Your task to perform on an android device: delete the emails in spam in the gmail app Image 0: 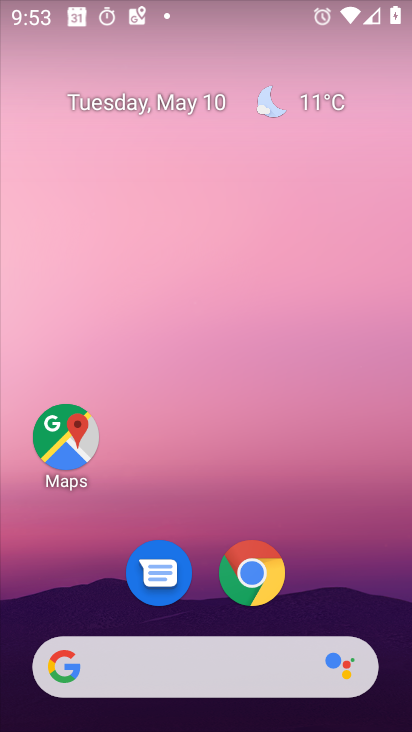
Step 0: drag from (379, 620) to (370, 118)
Your task to perform on an android device: delete the emails in spam in the gmail app Image 1: 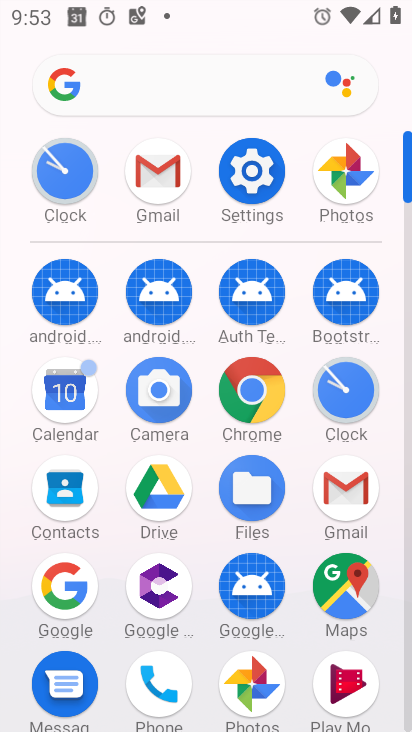
Step 1: click (159, 183)
Your task to perform on an android device: delete the emails in spam in the gmail app Image 2: 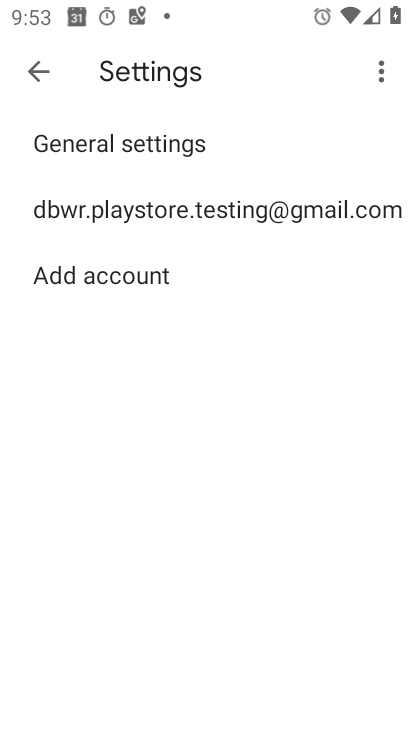
Step 2: click (41, 78)
Your task to perform on an android device: delete the emails in spam in the gmail app Image 3: 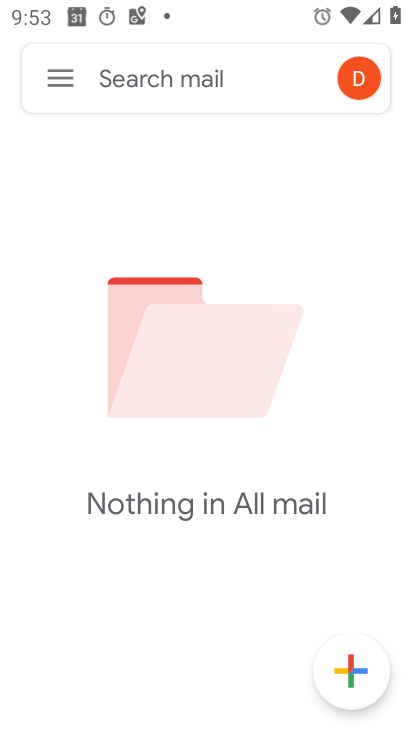
Step 3: click (49, 87)
Your task to perform on an android device: delete the emails in spam in the gmail app Image 4: 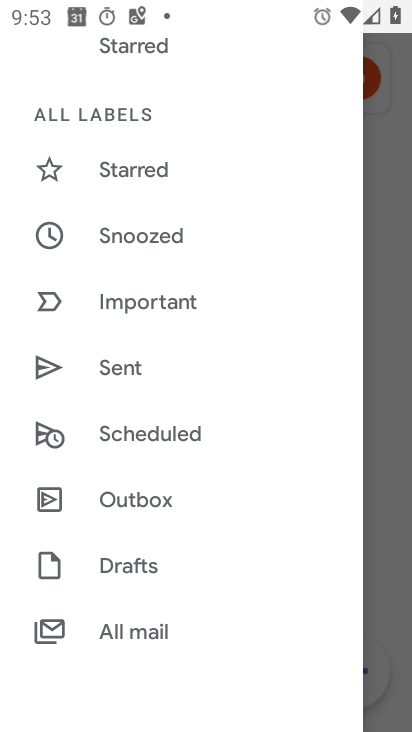
Step 4: drag from (236, 587) to (211, 305)
Your task to perform on an android device: delete the emails in spam in the gmail app Image 5: 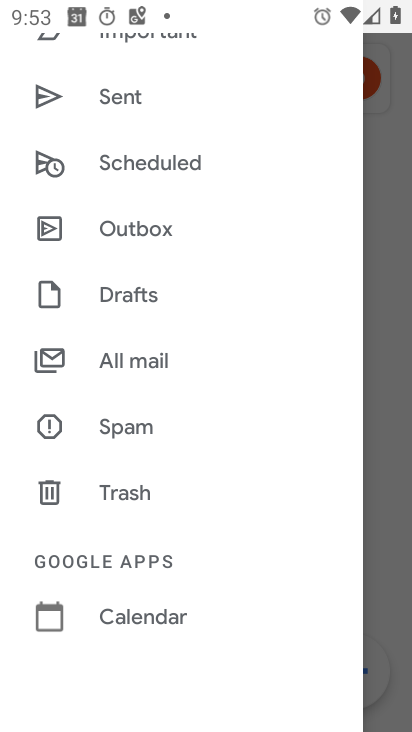
Step 5: click (137, 432)
Your task to perform on an android device: delete the emails in spam in the gmail app Image 6: 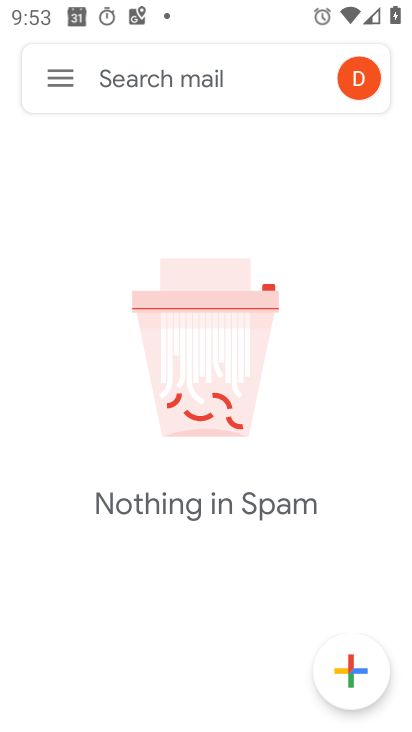
Step 6: task complete